Your task to perform on an android device: toggle airplane mode Image 0: 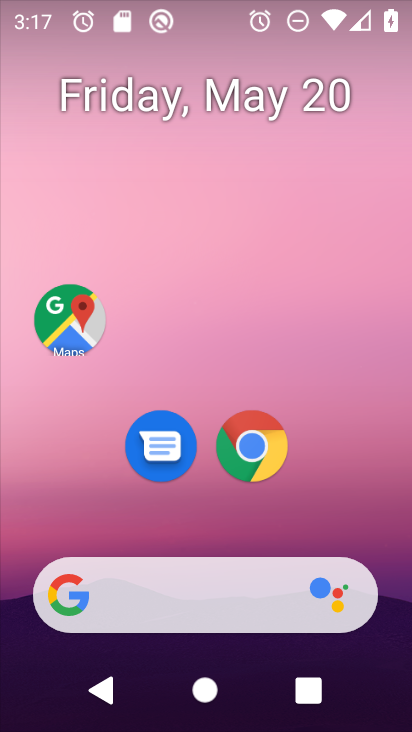
Step 0: drag from (361, 546) to (377, 1)
Your task to perform on an android device: toggle airplane mode Image 1: 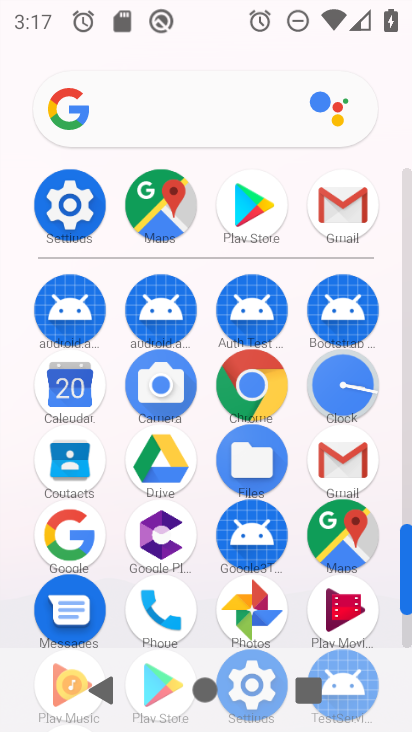
Step 1: click (72, 205)
Your task to perform on an android device: toggle airplane mode Image 2: 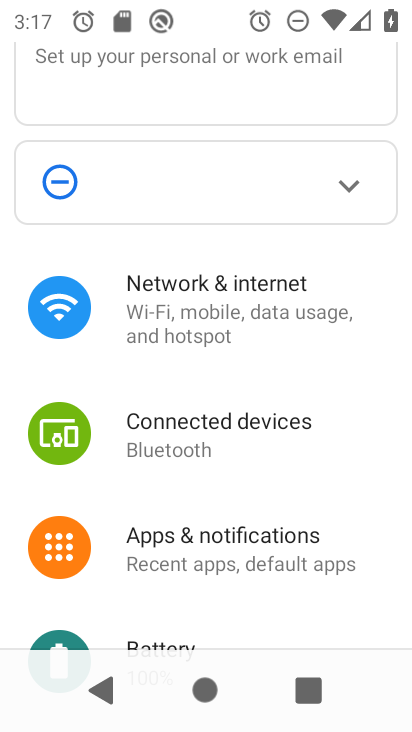
Step 2: click (192, 309)
Your task to perform on an android device: toggle airplane mode Image 3: 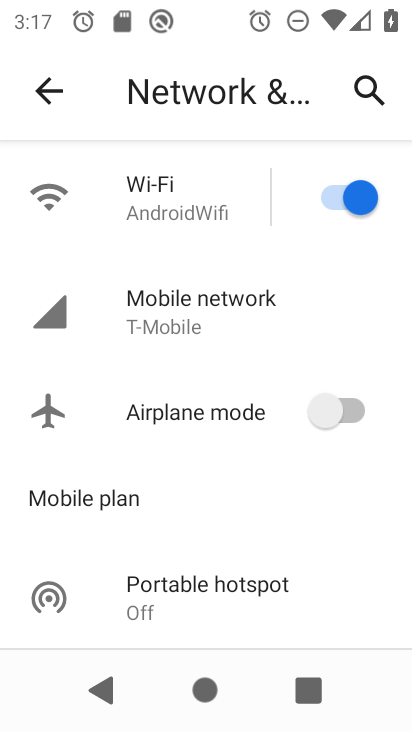
Step 3: click (332, 417)
Your task to perform on an android device: toggle airplane mode Image 4: 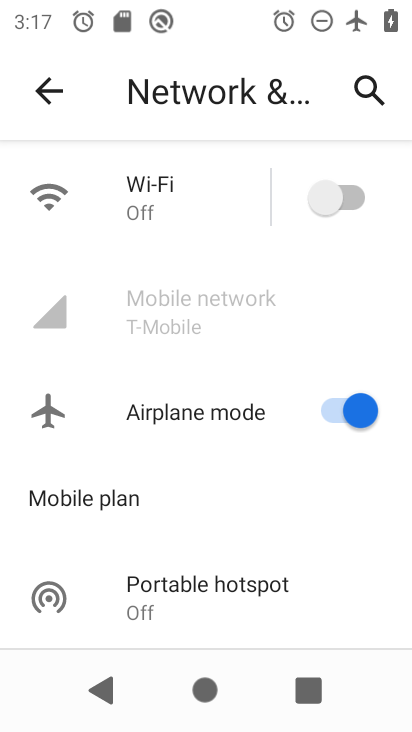
Step 4: task complete